Your task to perform on an android device: turn on sleep mode Image 0: 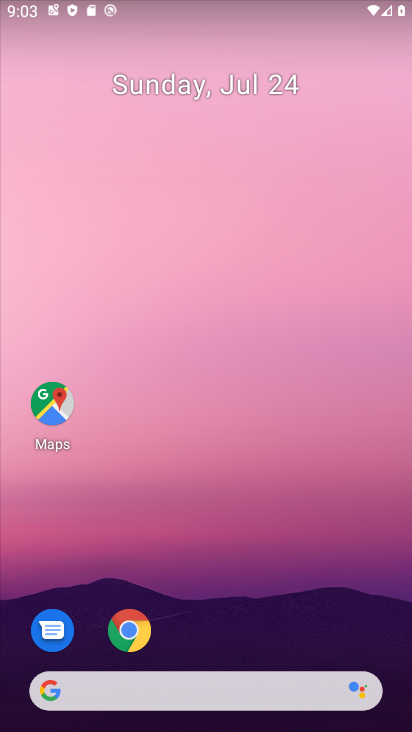
Step 0: drag from (225, 616) to (235, 197)
Your task to perform on an android device: turn on sleep mode Image 1: 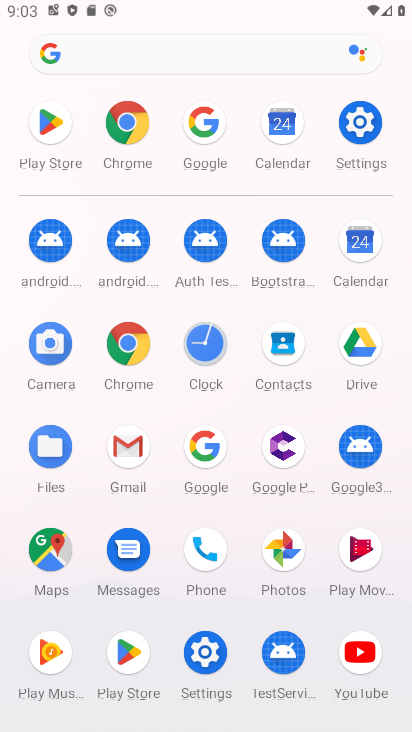
Step 1: click (354, 121)
Your task to perform on an android device: turn on sleep mode Image 2: 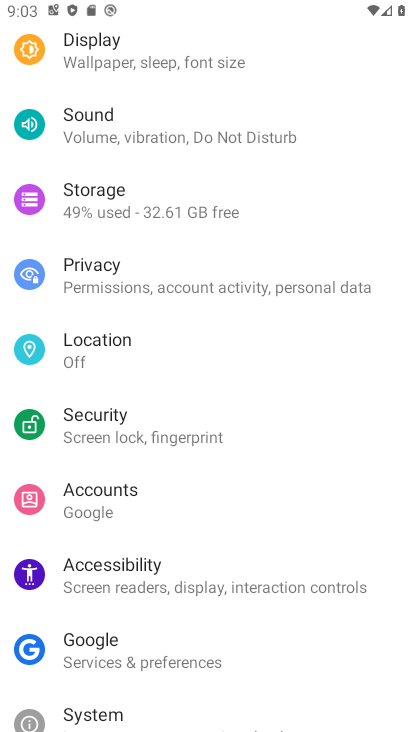
Step 2: click (148, 67)
Your task to perform on an android device: turn on sleep mode Image 3: 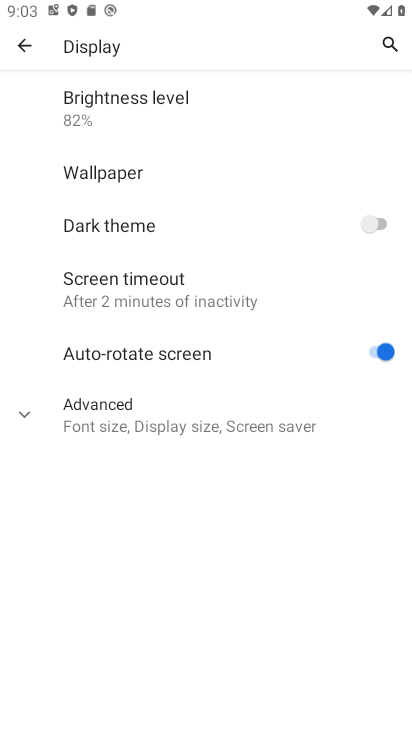
Step 3: click (167, 304)
Your task to perform on an android device: turn on sleep mode Image 4: 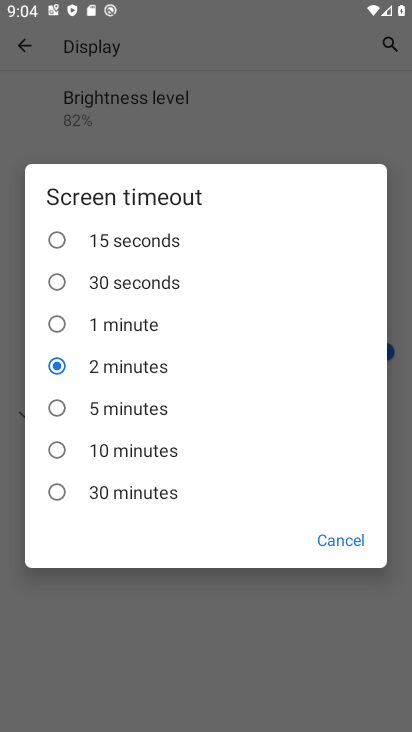
Step 4: click (132, 455)
Your task to perform on an android device: turn on sleep mode Image 5: 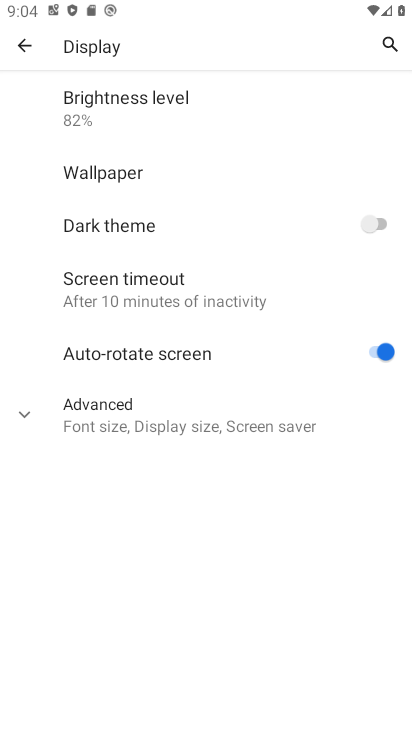
Step 5: task complete